Your task to perform on an android device: Open calendar and show me the first week of next month Image 0: 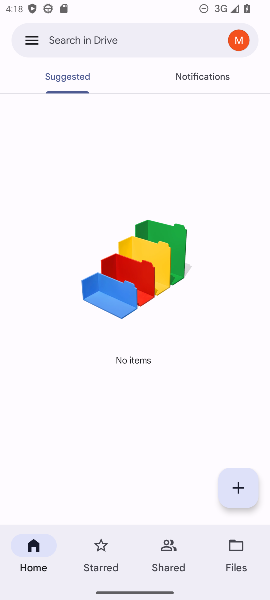
Step 0: press home button
Your task to perform on an android device: Open calendar and show me the first week of next month Image 1: 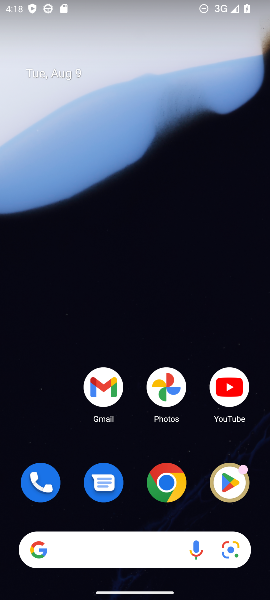
Step 1: drag from (124, 441) to (104, 96)
Your task to perform on an android device: Open calendar and show me the first week of next month Image 2: 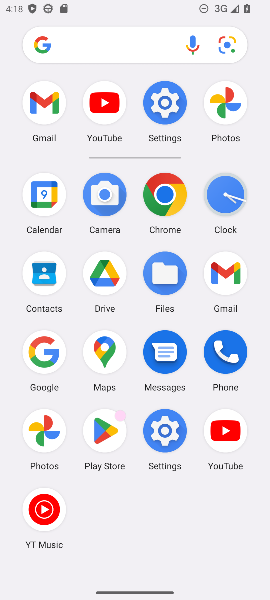
Step 2: click (49, 203)
Your task to perform on an android device: Open calendar and show me the first week of next month Image 3: 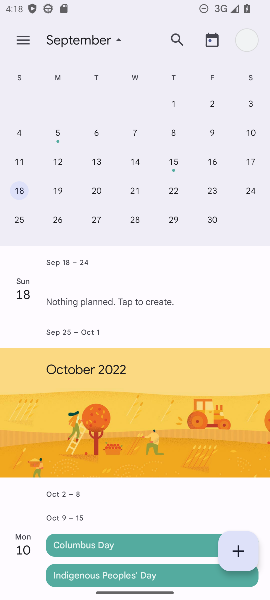
Step 3: click (231, 143)
Your task to perform on an android device: Open calendar and show me the first week of next month Image 4: 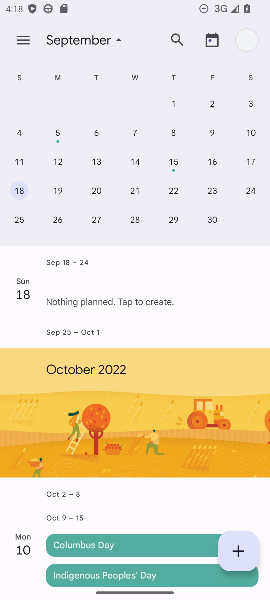
Step 4: click (179, 102)
Your task to perform on an android device: Open calendar and show me the first week of next month Image 5: 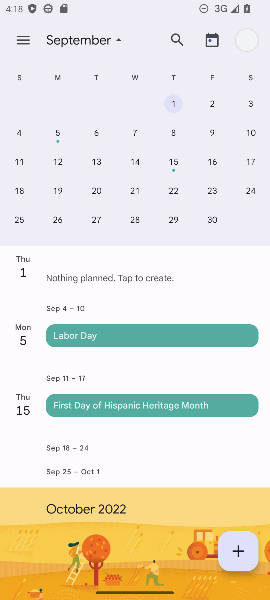
Step 5: task complete